Your task to perform on an android device: Go to Amazon Image 0: 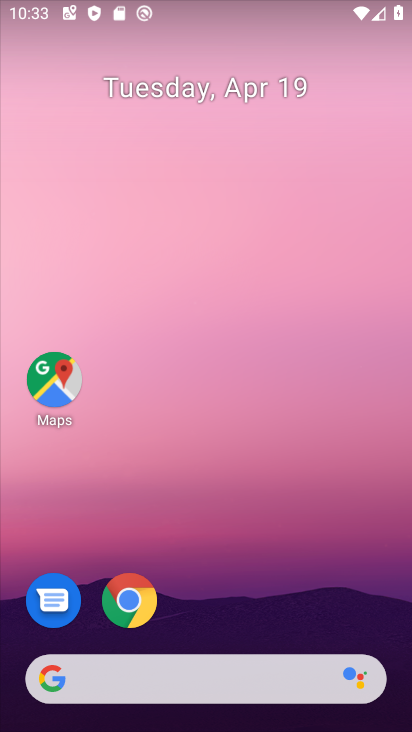
Step 0: click (133, 590)
Your task to perform on an android device: Go to Amazon Image 1: 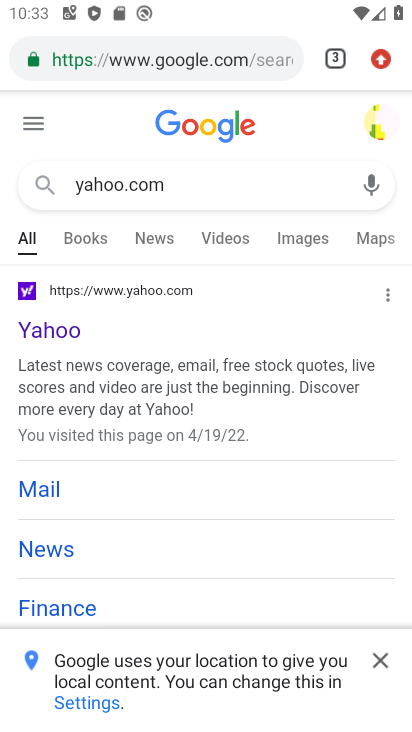
Step 1: click (198, 58)
Your task to perform on an android device: Go to Amazon Image 2: 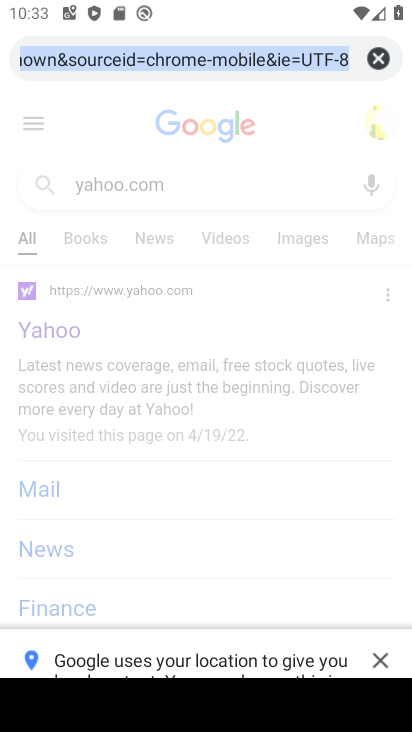
Step 2: type "amazon.com"
Your task to perform on an android device: Go to Amazon Image 3: 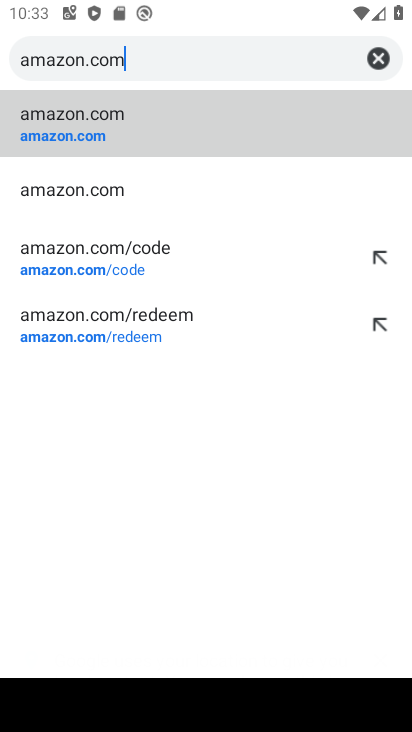
Step 3: click (139, 116)
Your task to perform on an android device: Go to Amazon Image 4: 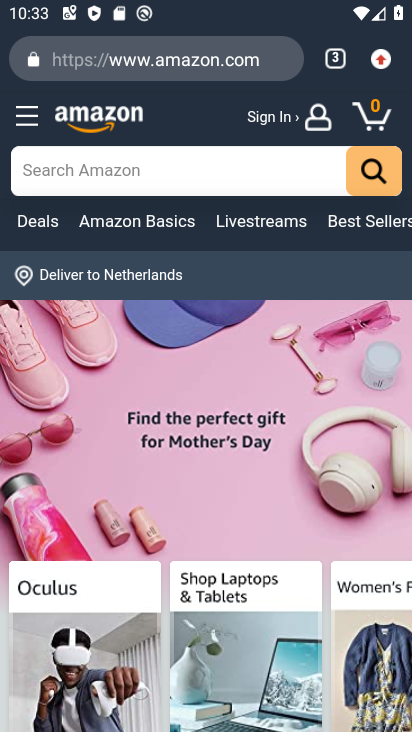
Step 4: task complete